Your task to perform on an android device: Set the phone to "Do not disturb". Image 0: 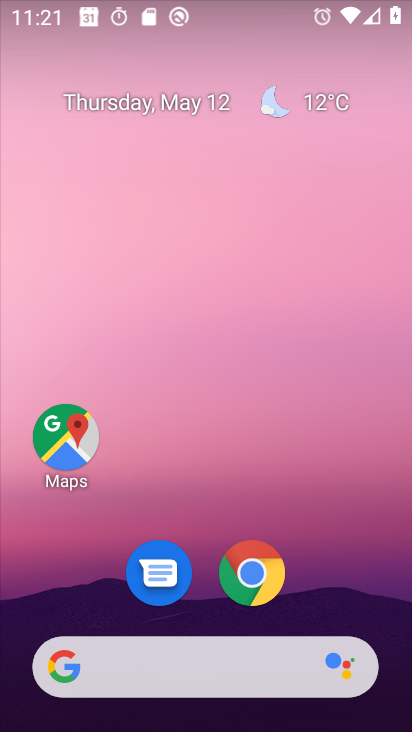
Step 0: drag from (393, 696) to (344, 244)
Your task to perform on an android device: Set the phone to "Do not disturb". Image 1: 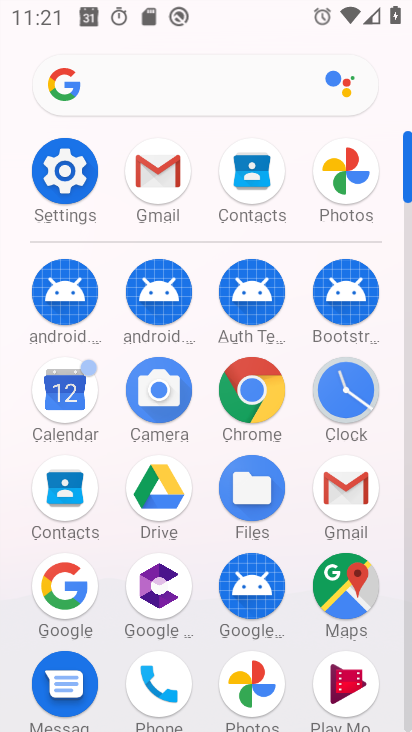
Step 1: click (80, 196)
Your task to perform on an android device: Set the phone to "Do not disturb". Image 2: 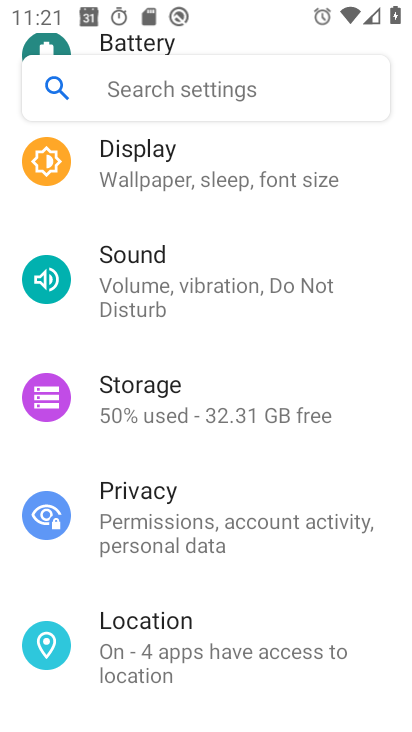
Step 2: click (145, 276)
Your task to perform on an android device: Set the phone to "Do not disturb". Image 3: 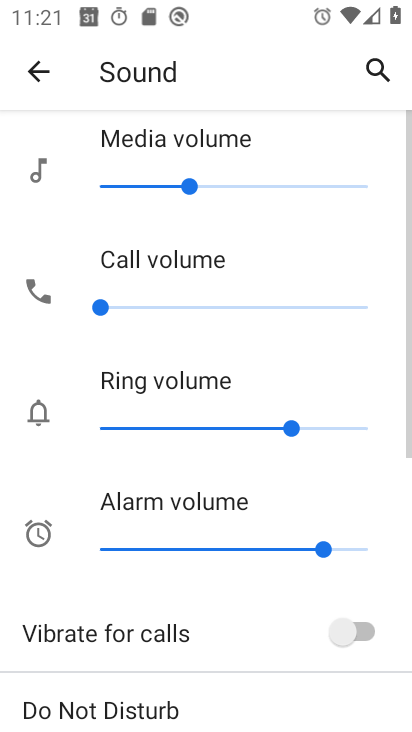
Step 3: drag from (186, 691) to (195, 405)
Your task to perform on an android device: Set the phone to "Do not disturb". Image 4: 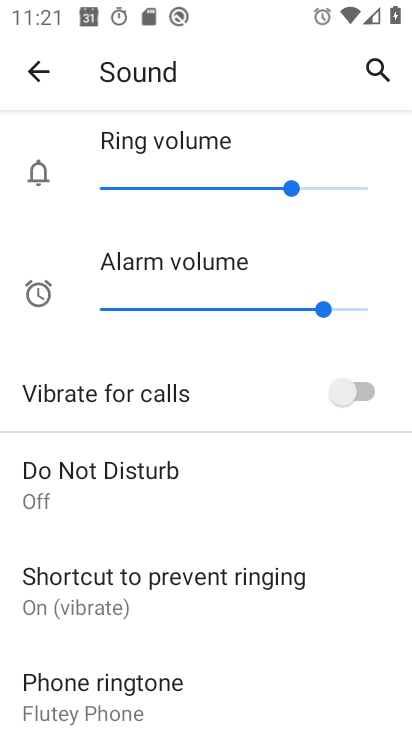
Step 4: click (43, 470)
Your task to perform on an android device: Set the phone to "Do not disturb". Image 5: 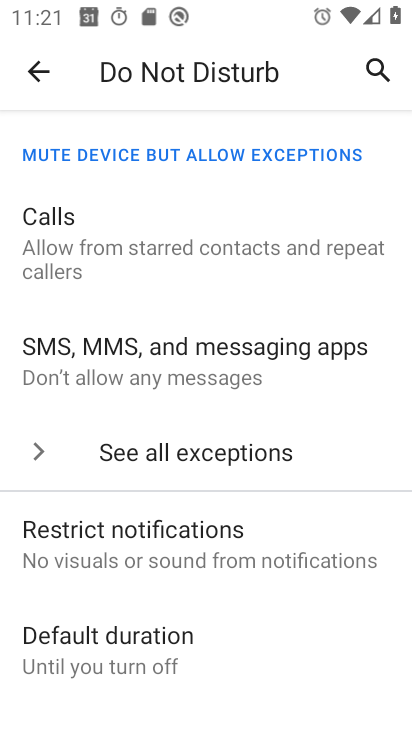
Step 5: drag from (204, 666) to (219, 297)
Your task to perform on an android device: Set the phone to "Do not disturb". Image 6: 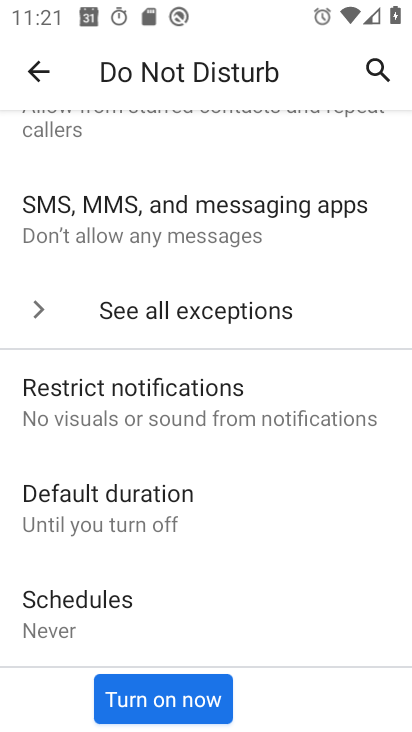
Step 6: drag from (260, 670) to (239, 372)
Your task to perform on an android device: Set the phone to "Do not disturb". Image 7: 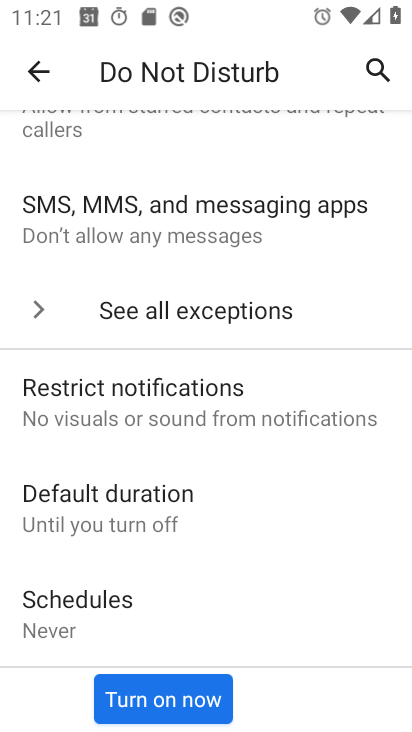
Step 7: click (191, 692)
Your task to perform on an android device: Set the phone to "Do not disturb". Image 8: 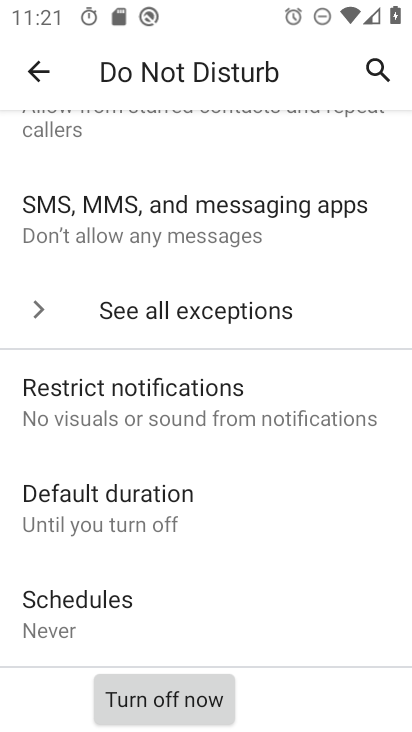
Step 8: task complete